Your task to perform on an android device: Open my contact list Image 0: 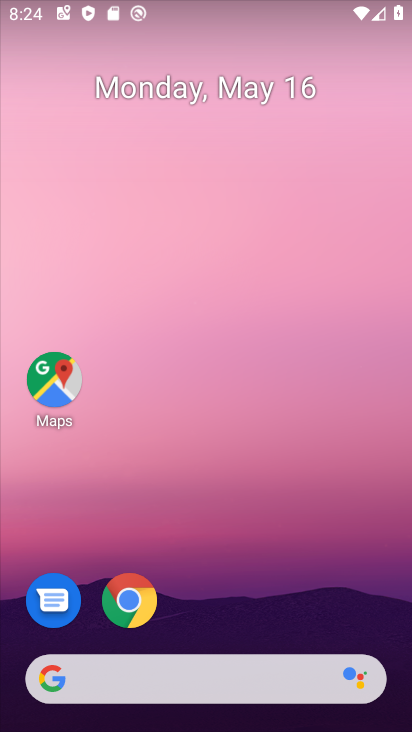
Step 0: drag from (346, 555) to (405, 247)
Your task to perform on an android device: Open my contact list Image 1: 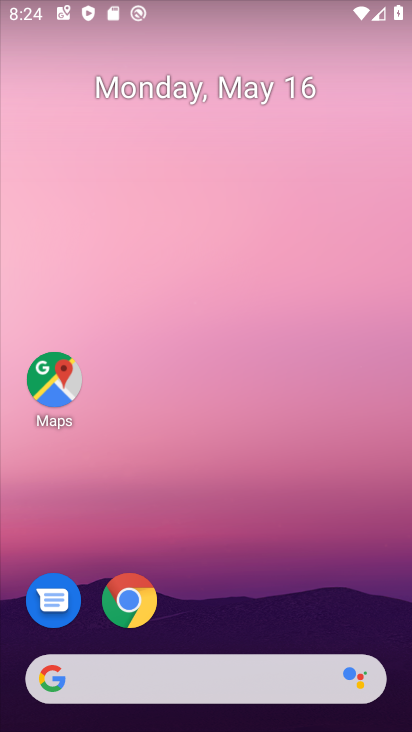
Step 1: drag from (293, 611) to (343, 139)
Your task to perform on an android device: Open my contact list Image 2: 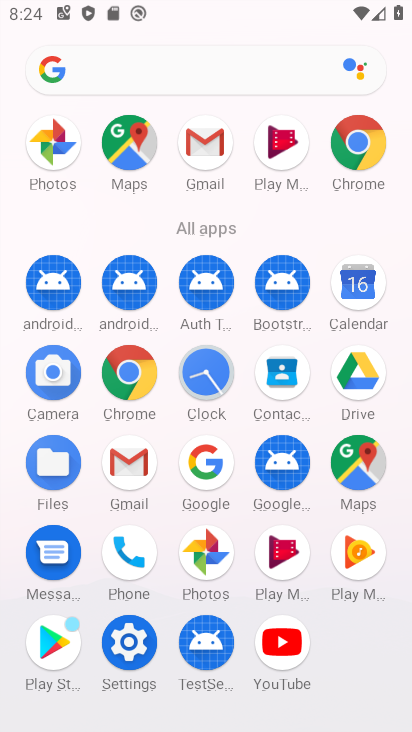
Step 2: click (281, 397)
Your task to perform on an android device: Open my contact list Image 3: 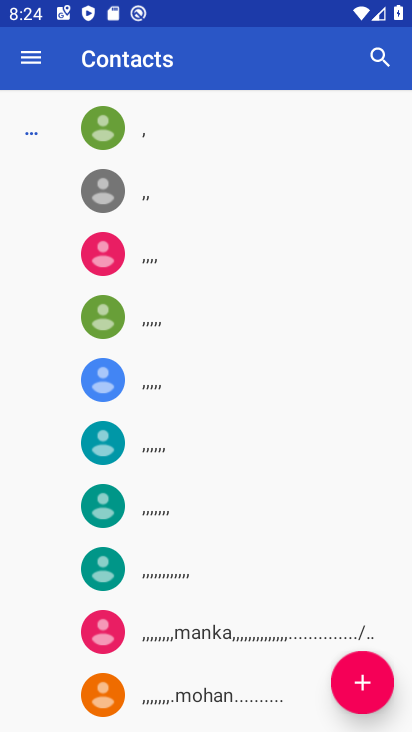
Step 3: task complete